Your task to perform on an android device: Go to eBay Image 0: 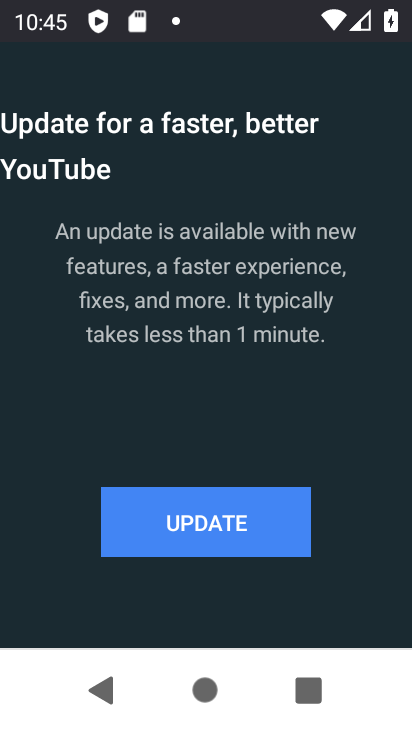
Step 0: press home button
Your task to perform on an android device: Go to eBay Image 1: 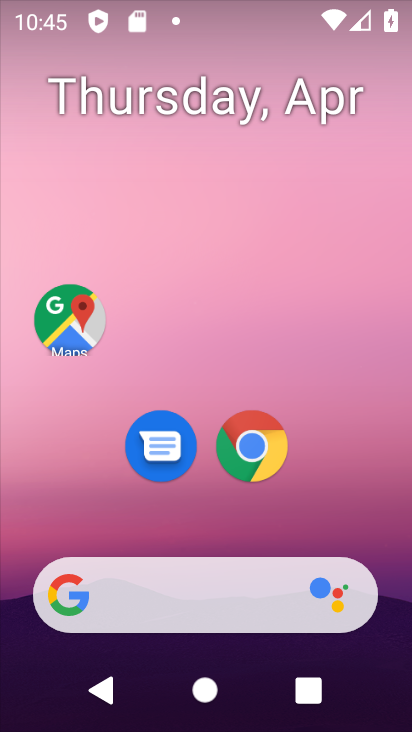
Step 1: drag from (205, 526) to (213, 282)
Your task to perform on an android device: Go to eBay Image 2: 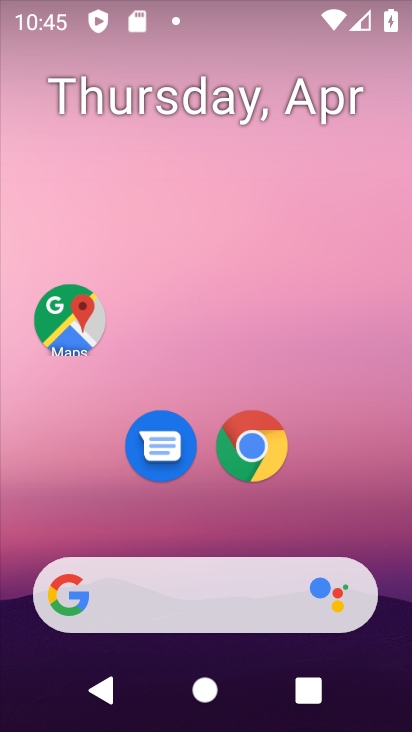
Step 2: click (162, 605)
Your task to perform on an android device: Go to eBay Image 3: 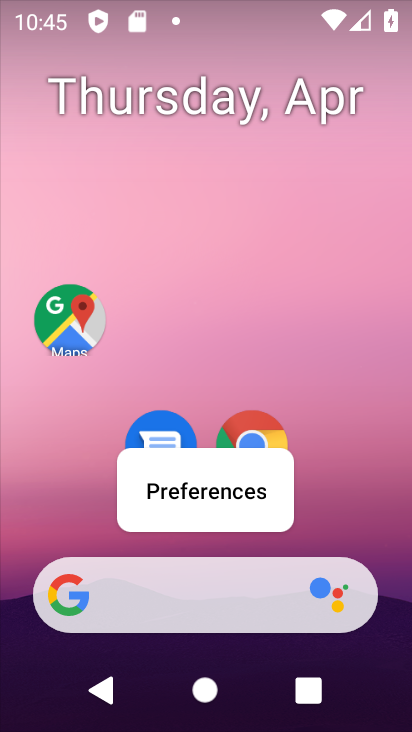
Step 3: click (246, 331)
Your task to perform on an android device: Go to eBay Image 4: 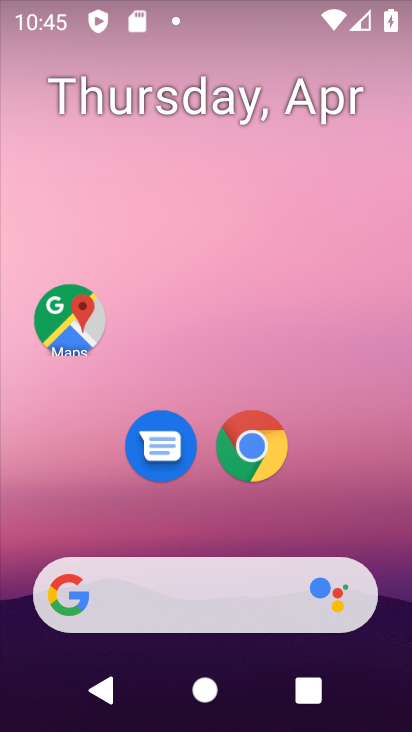
Step 4: click (261, 436)
Your task to perform on an android device: Go to eBay Image 5: 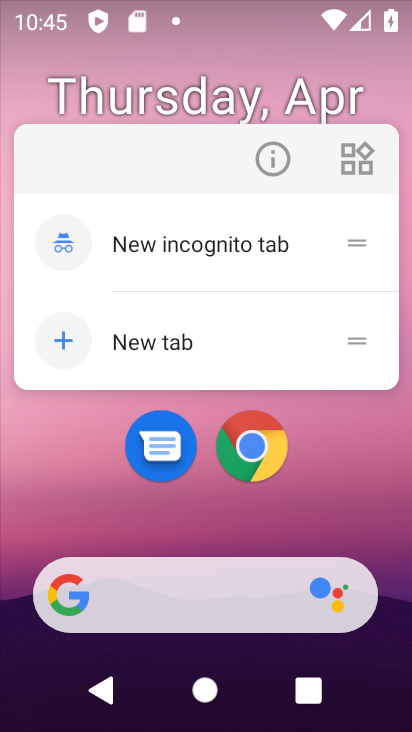
Step 5: click (272, 166)
Your task to perform on an android device: Go to eBay Image 6: 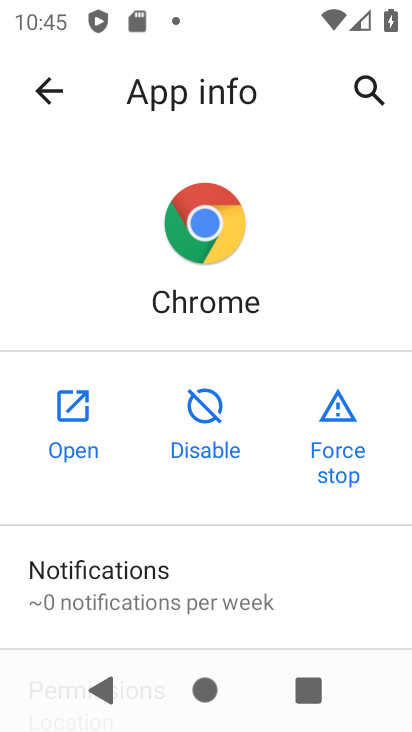
Step 6: click (74, 402)
Your task to perform on an android device: Go to eBay Image 7: 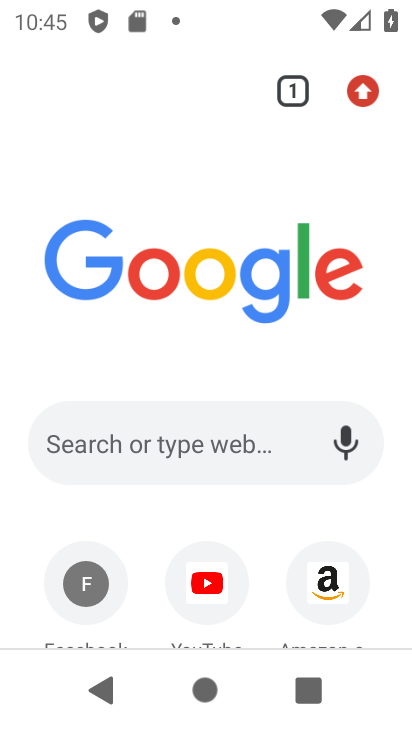
Step 7: drag from (275, 589) to (275, 252)
Your task to perform on an android device: Go to eBay Image 8: 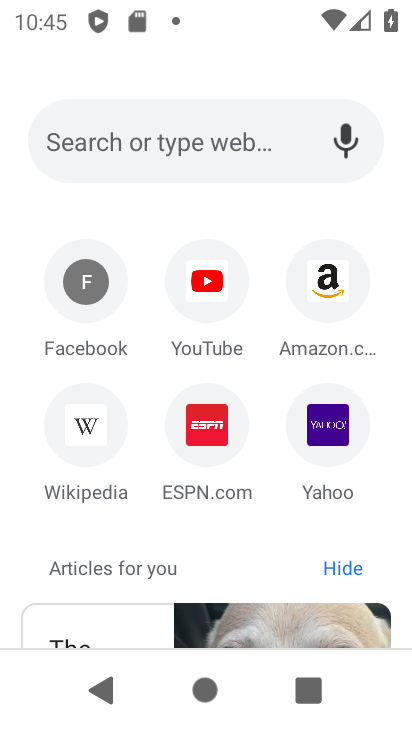
Step 8: click (107, 128)
Your task to perform on an android device: Go to eBay Image 9: 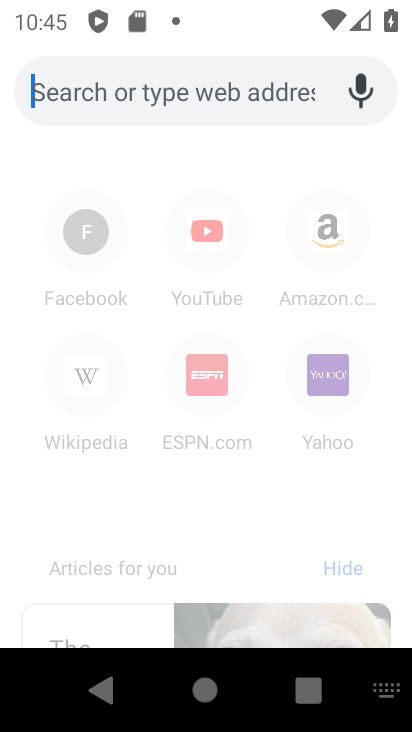
Step 9: type "ebay"
Your task to perform on an android device: Go to eBay Image 10: 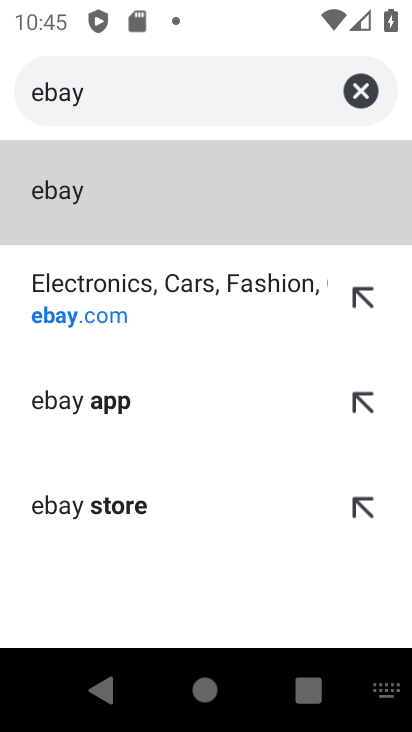
Step 10: click (127, 195)
Your task to perform on an android device: Go to eBay Image 11: 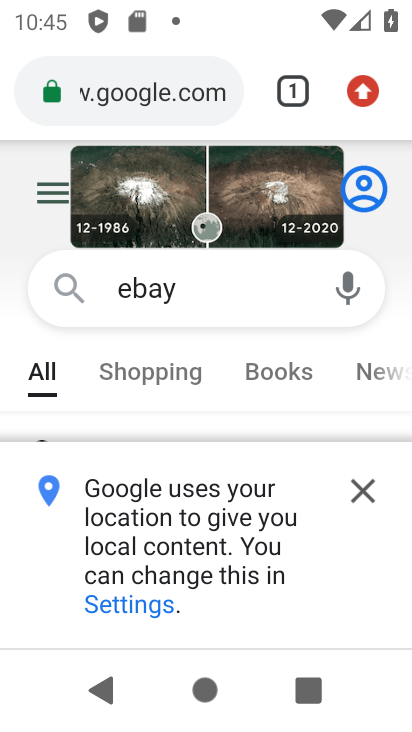
Step 11: drag from (265, 417) to (346, 147)
Your task to perform on an android device: Go to eBay Image 12: 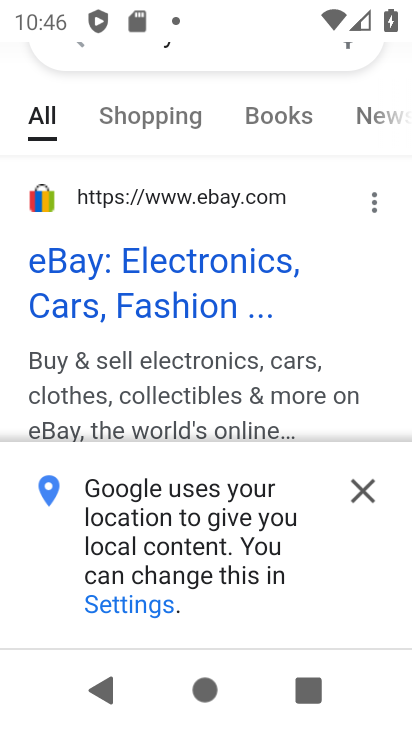
Step 12: drag from (218, 392) to (309, 192)
Your task to perform on an android device: Go to eBay Image 13: 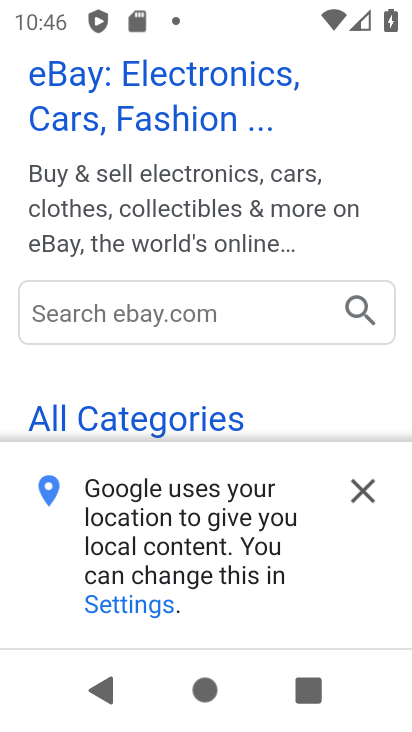
Step 13: drag from (232, 386) to (332, 72)
Your task to perform on an android device: Go to eBay Image 14: 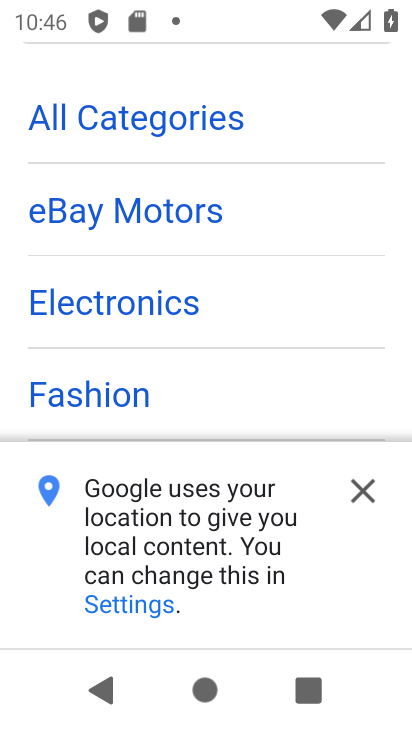
Step 14: drag from (222, 436) to (268, 32)
Your task to perform on an android device: Go to eBay Image 15: 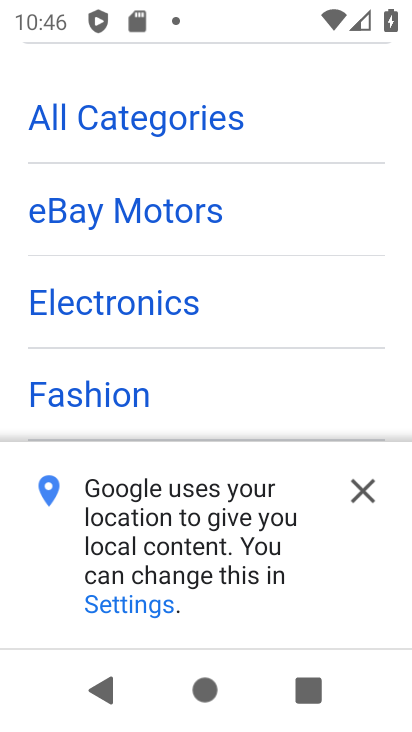
Step 15: drag from (296, 155) to (390, 632)
Your task to perform on an android device: Go to eBay Image 16: 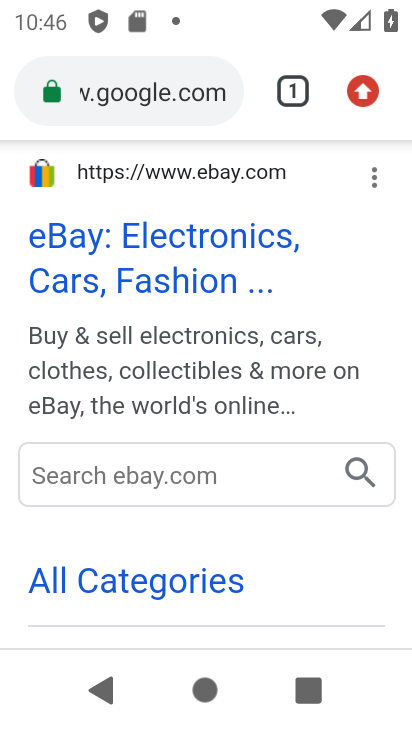
Step 16: drag from (234, 245) to (288, 712)
Your task to perform on an android device: Go to eBay Image 17: 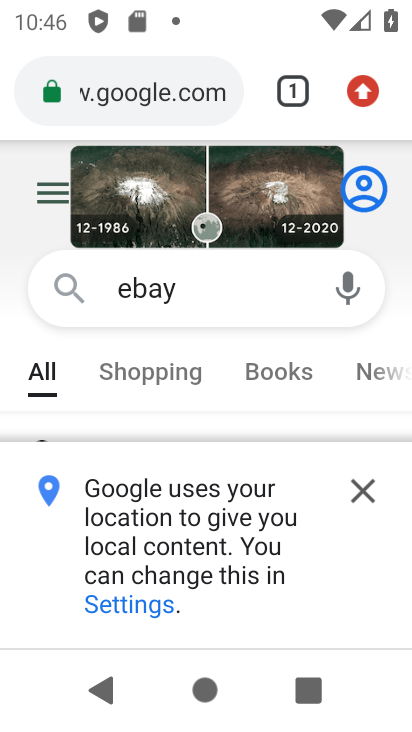
Step 17: drag from (254, 349) to (349, 58)
Your task to perform on an android device: Go to eBay Image 18: 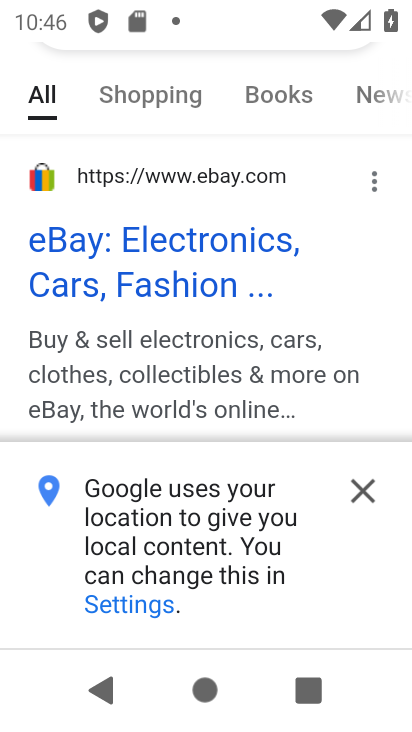
Step 18: click (159, 263)
Your task to perform on an android device: Go to eBay Image 19: 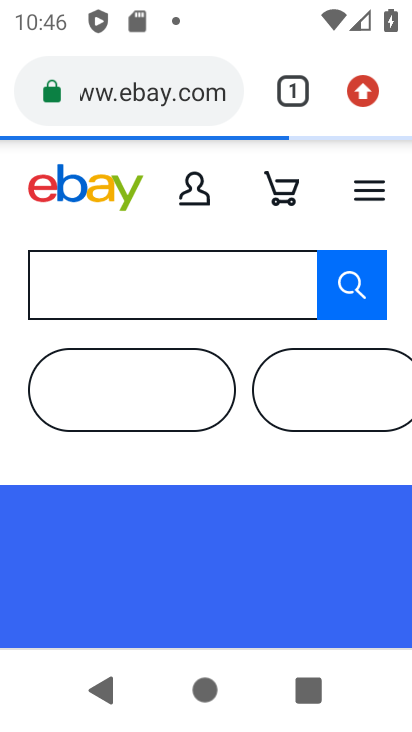
Step 19: task complete